Your task to perform on an android device: Show me the alarms in the clock app Image 0: 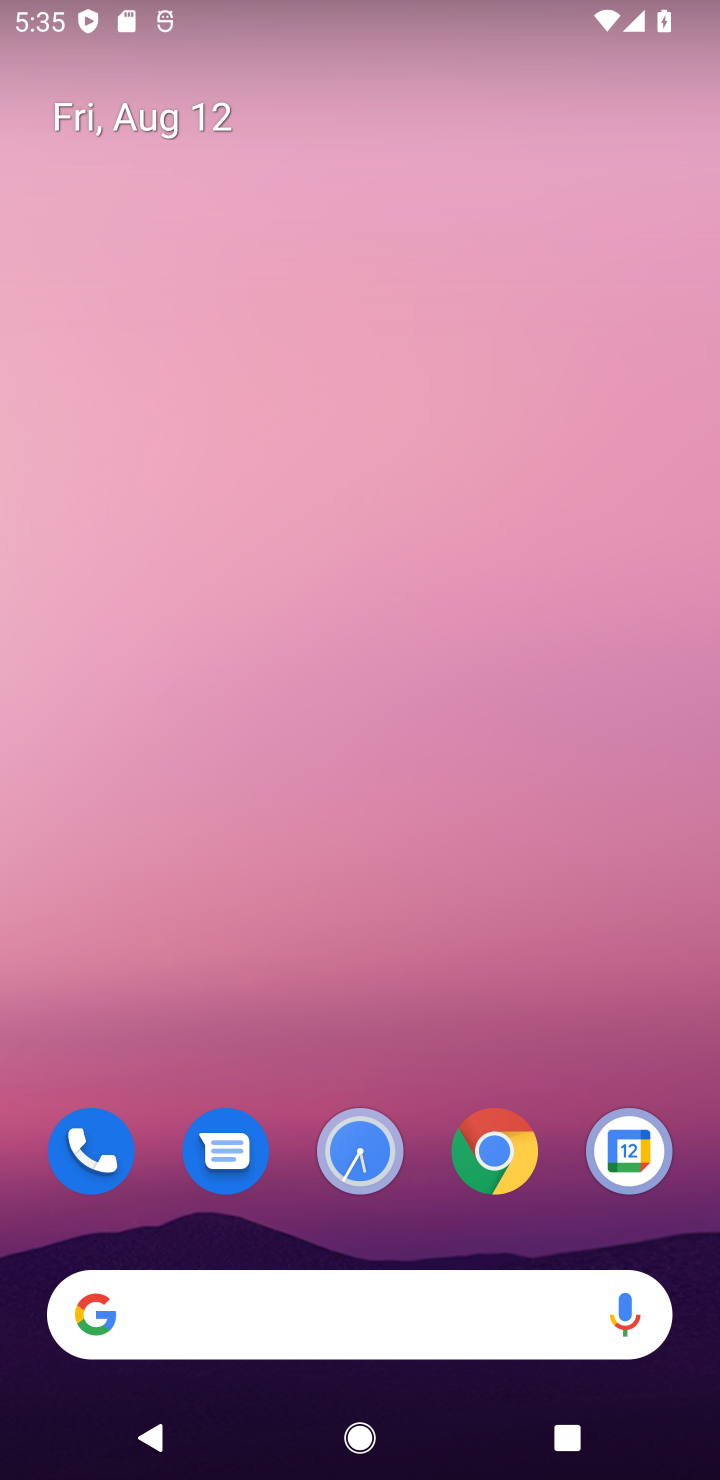
Step 0: drag from (392, 1012) to (327, 150)
Your task to perform on an android device: Show me the alarms in the clock app Image 1: 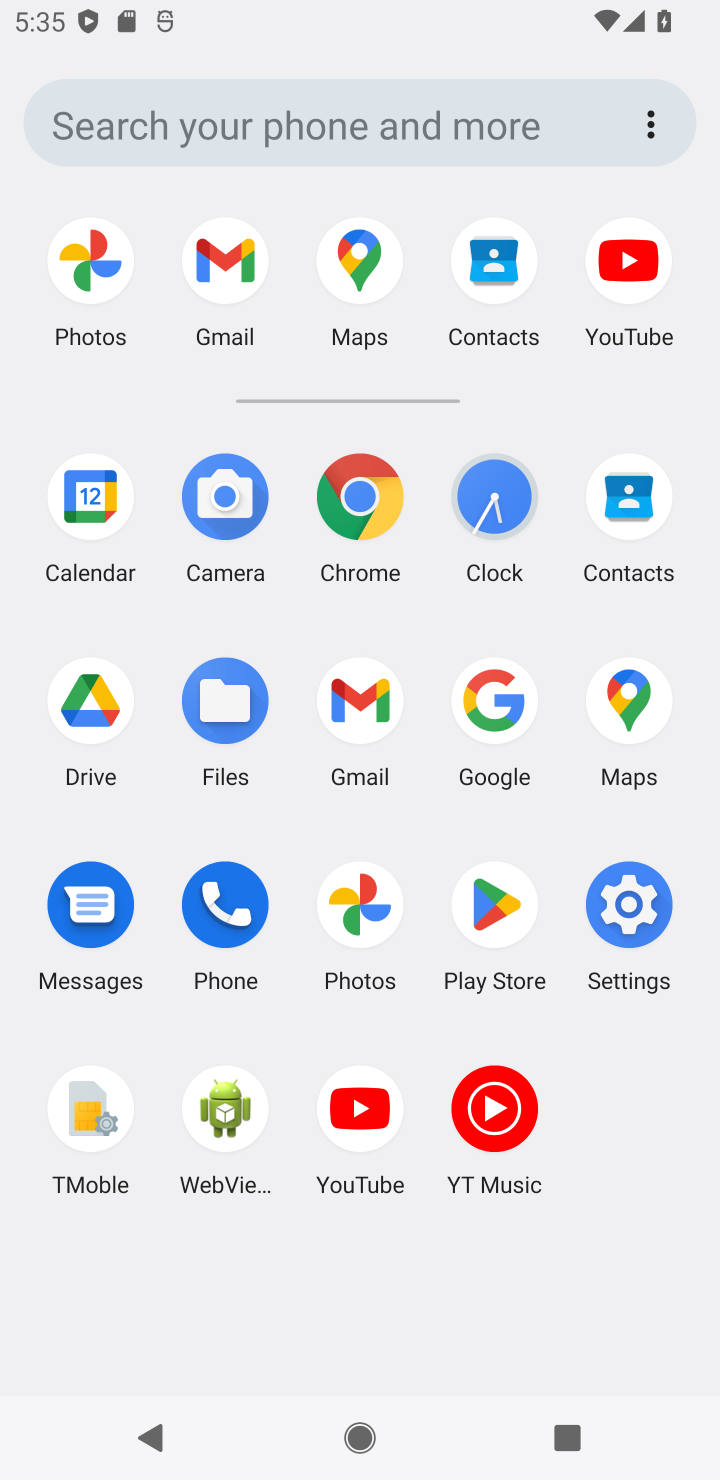
Step 1: click (492, 499)
Your task to perform on an android device: Show me the alarms in the clock app Image 2: 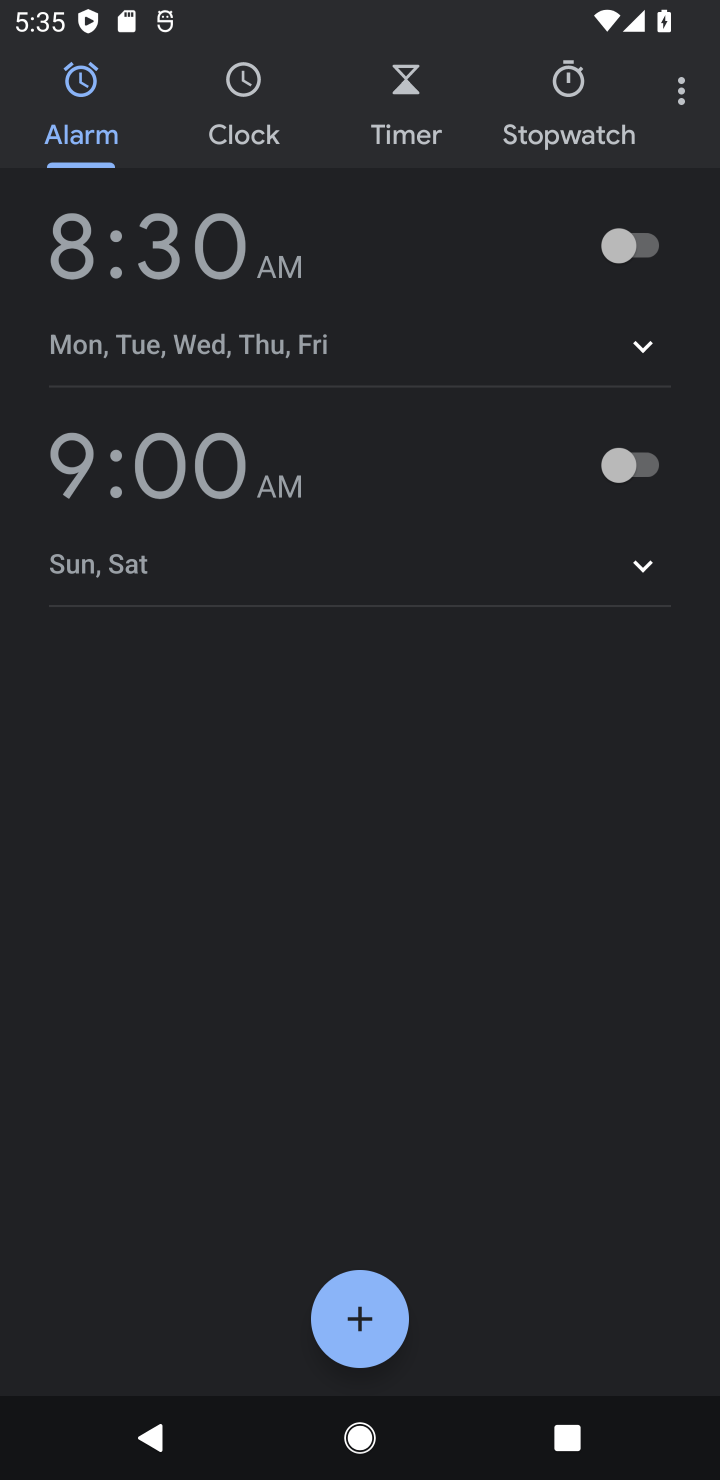
Step 2: task complete